Your task to perform on an android device: Open settings Image 0: 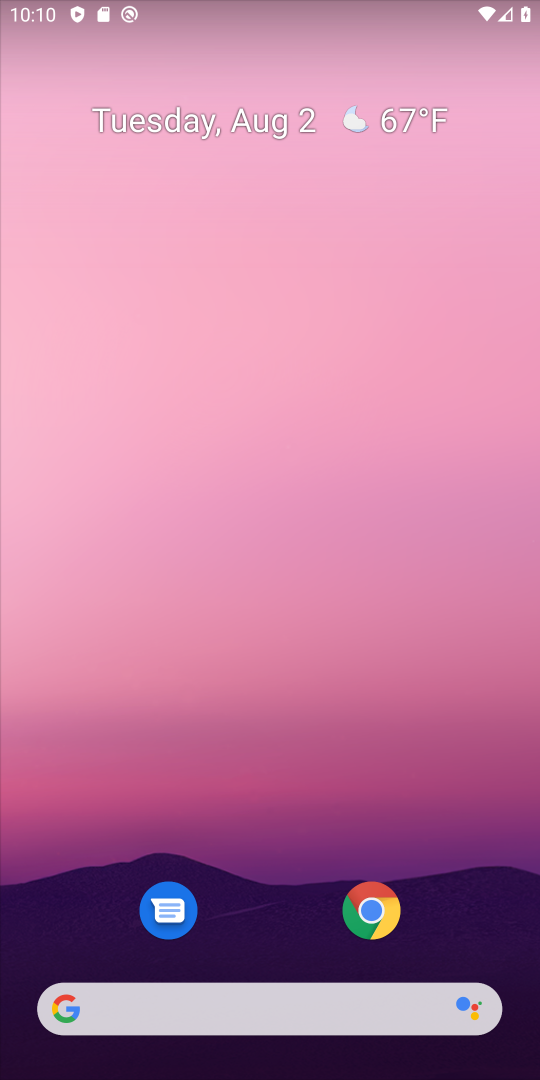
Step 0: drag from (216, 952) to (285, 477)
Your task to perform on an android device: Open settings Image 1: 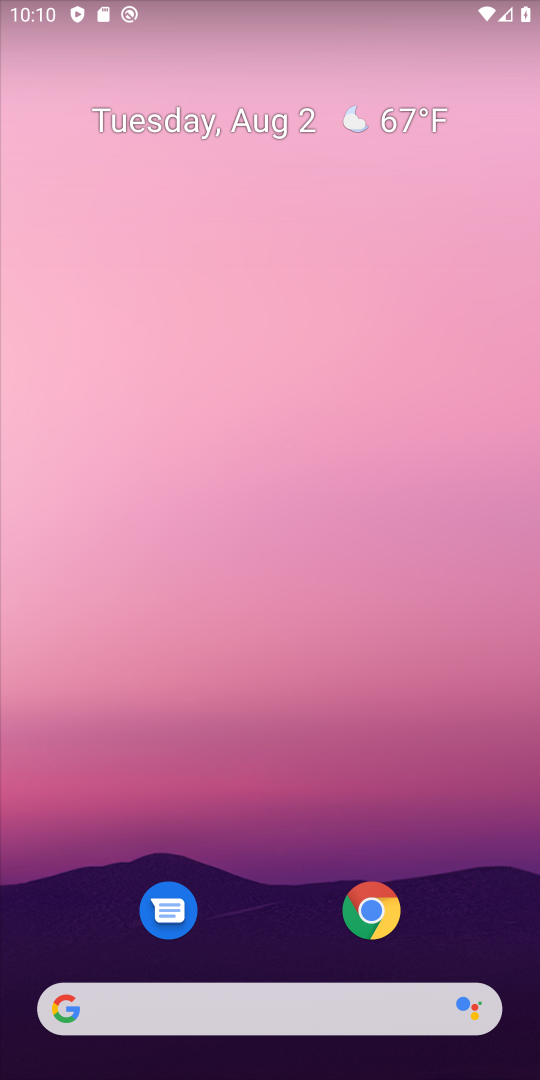
Step 1: drag from (246, 858) to (276, 252)
Your task to perform on an android device: Open settings Image 2: 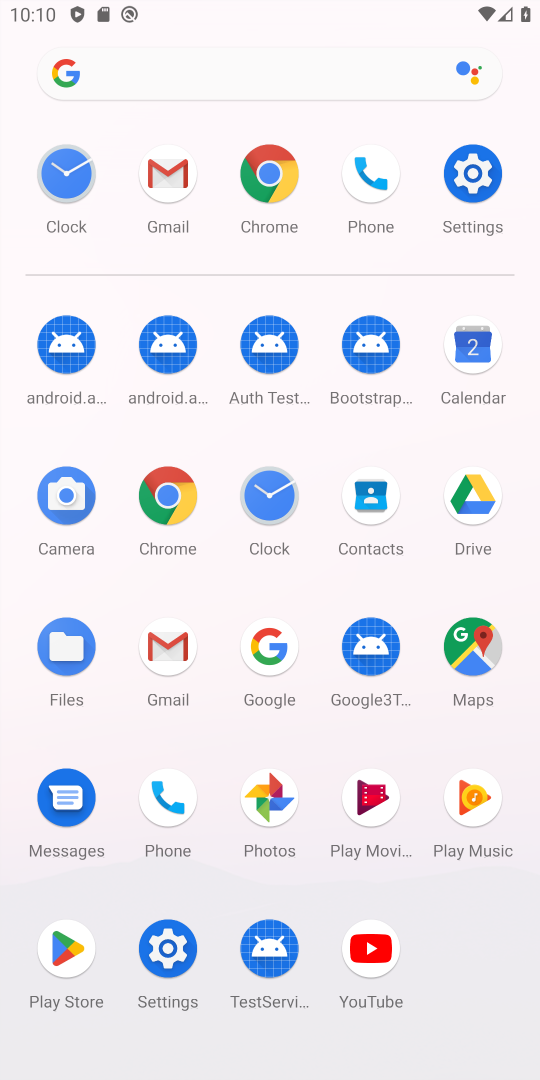
Step 2: click (481, 173)
Your task to perform on an android device: Open settings Image 3: 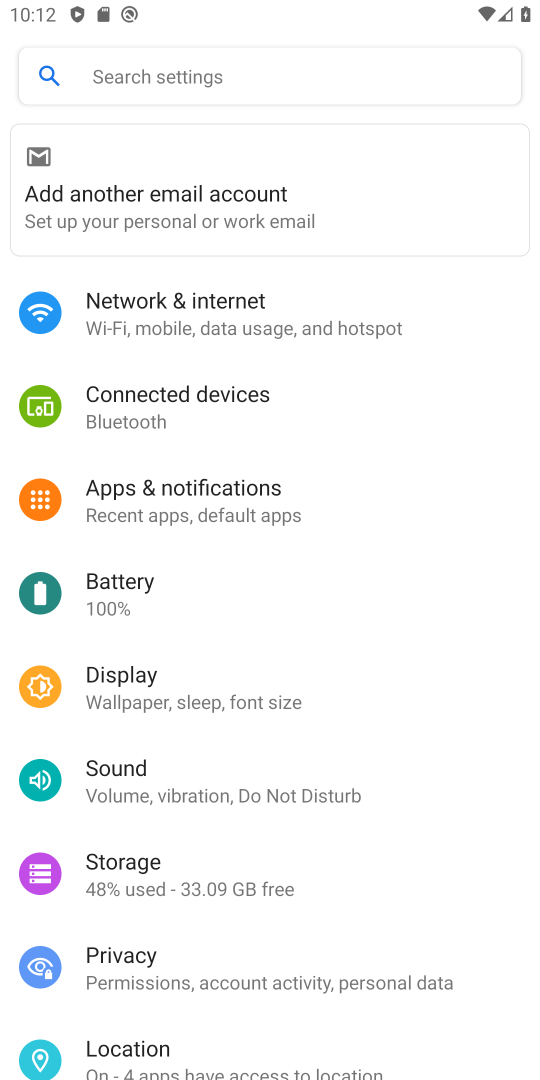
Step 3: task complete